Your task to perform on an android device: turn off improve location accuracy Image 0: 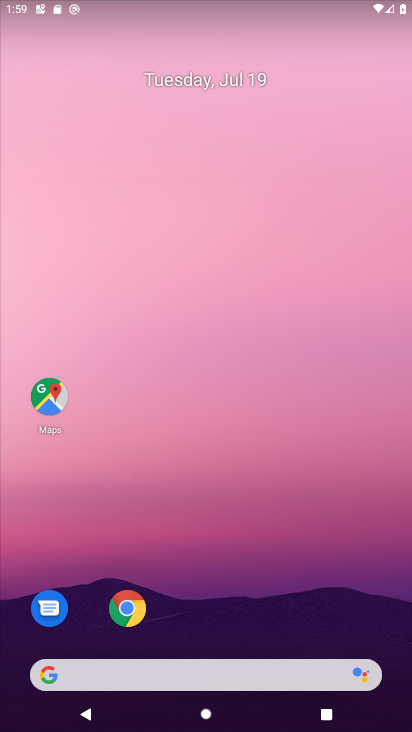
Step 0: drag from (257, 495) to (227, 45)
Your task to perform on an android device: turn off improve location accuracy Image 1: 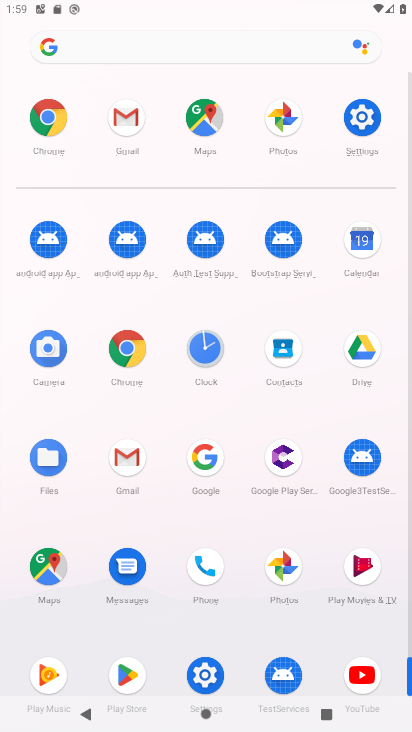
Step 1: click (216, 678)
Your task to perform on an android device: turn off improve location accuracy Image 2: 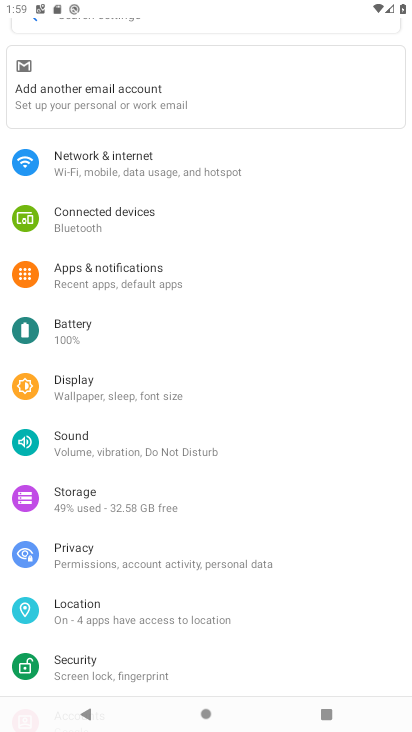
Step 2: drag from (112, 625) to (182, 381)
Your task to perform on an android device: turn off improve location accuracy Image 3: 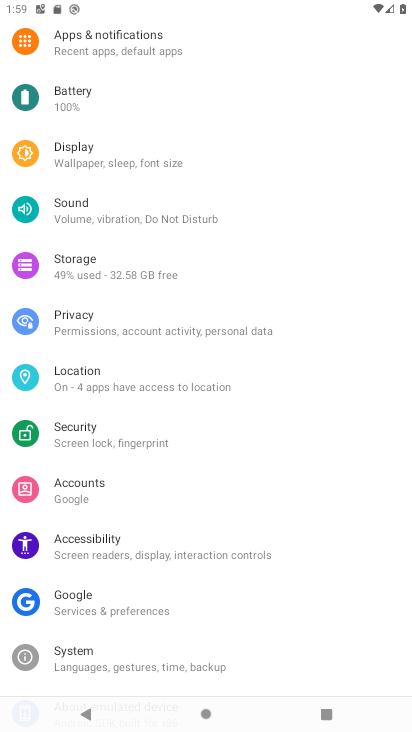
Step 3: click (91, 383)
Your task to perform on an android device: turn off improve location accuracy Image 4: 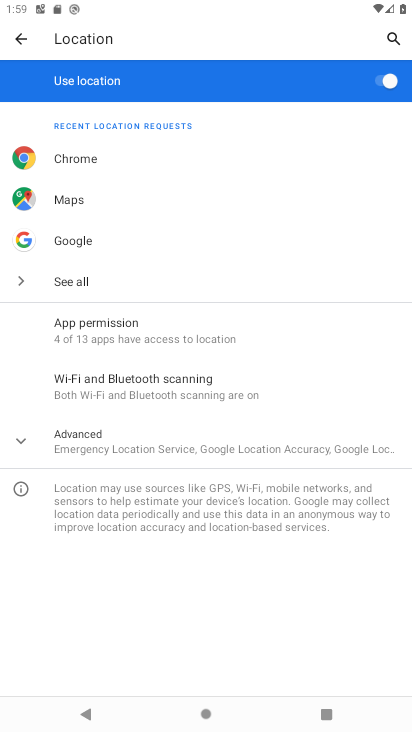
Step 4: click (88, 441)
Your task to perform on an android device: turn off improve location accuracy Image 5: 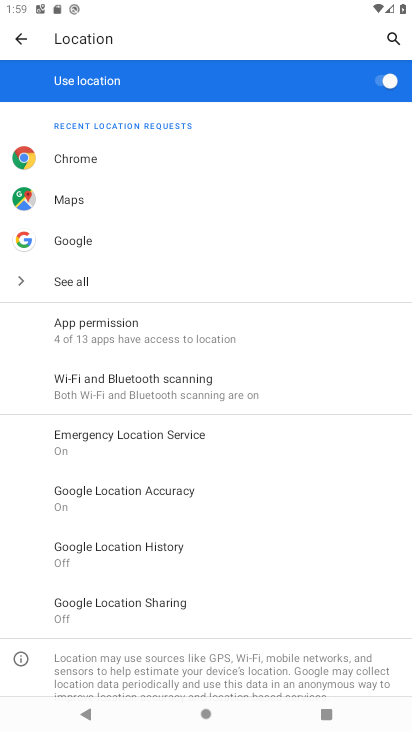
Step 5: click (177, 491)
Your task to perform on an android device: turn off improve location accuracy Image 6: 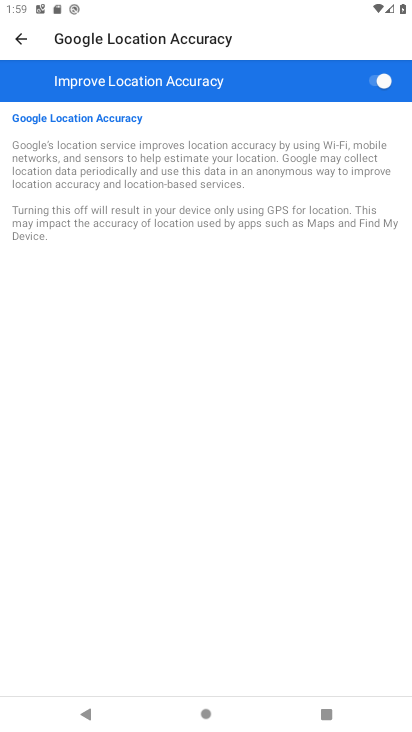
Step 6: click (377, 75)
Your task to perform on an android device: turn off improve location accuracy Image 7: 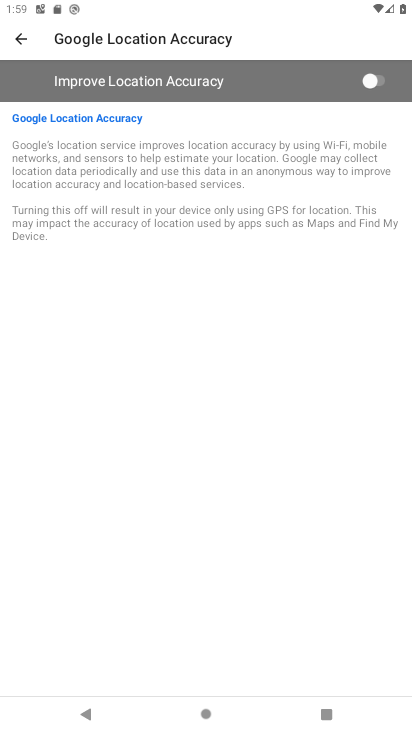
Step 7: task complete